Your task to perform on an android device: Go to display settings Image 0: 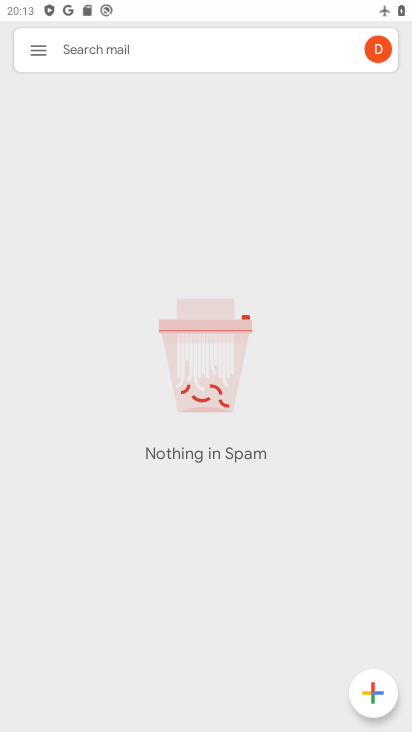
Step 0: press home button
Your task to perform on an android device: Go to display settings Image 1: 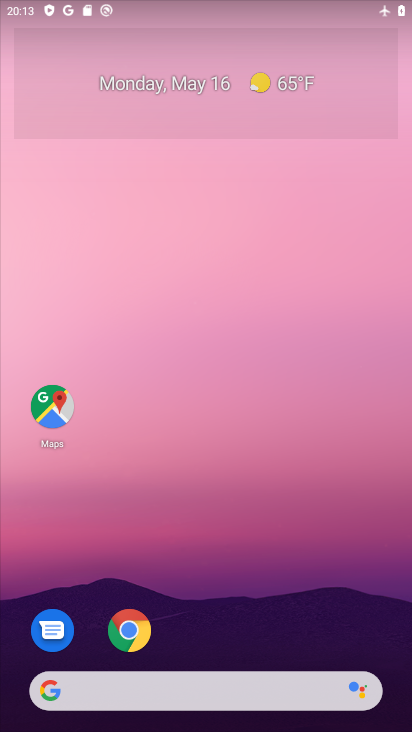
Step 1: drag from (224, 639) to (285, 176)
Your task to perform on an android device: Go to display settings Image 2: 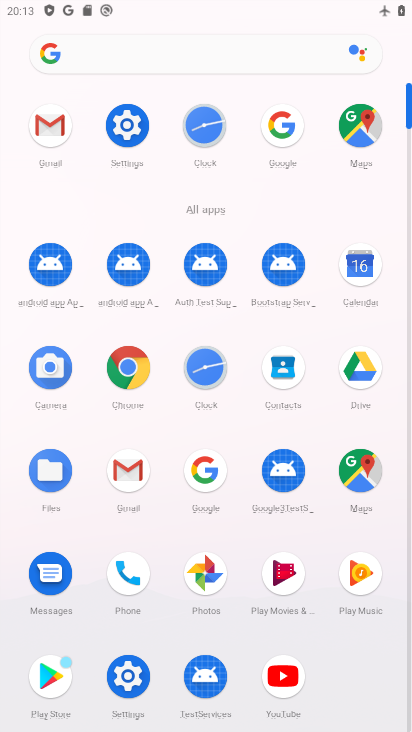
Step 2: click (141, 125)
Your task to perform on an android device: Go to display settings Image 3: 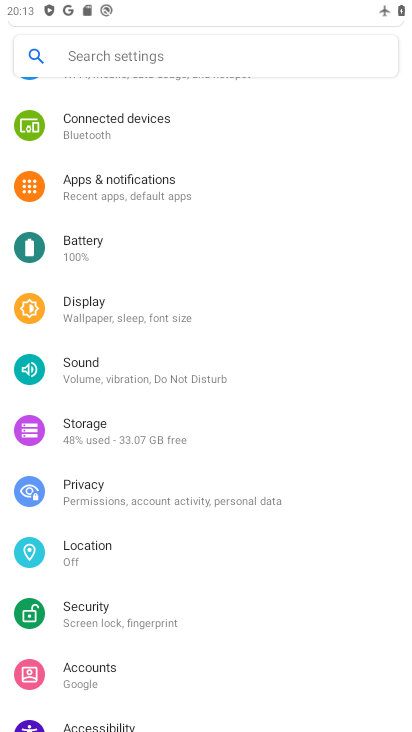
Step 3: click (100, 315)
Your task to perform on an android device: Go to display settings Image 4: 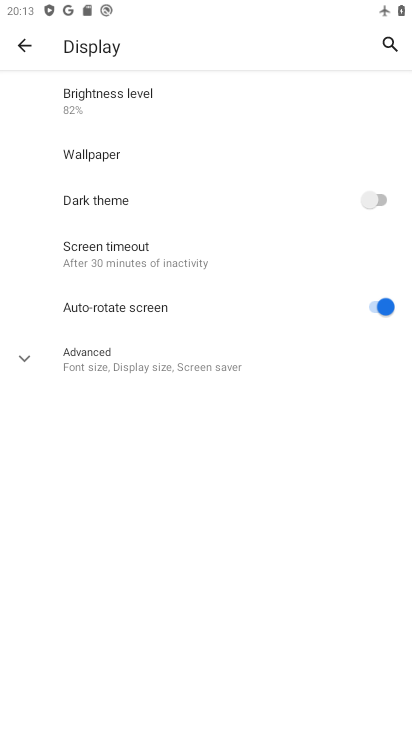
Step 4: task complete